Your task to perform on an android device: Toggle the flashlight Image 0: 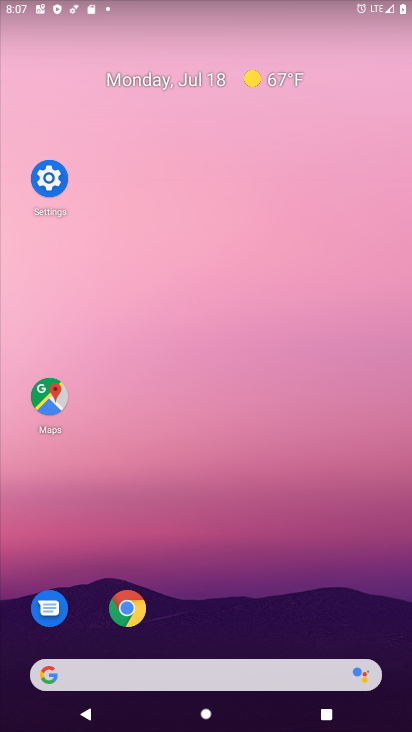
Step 0: drag from (275, 1) to (289, 359)
Your task to perform on an android device: Toggle the flashlight Image 1: 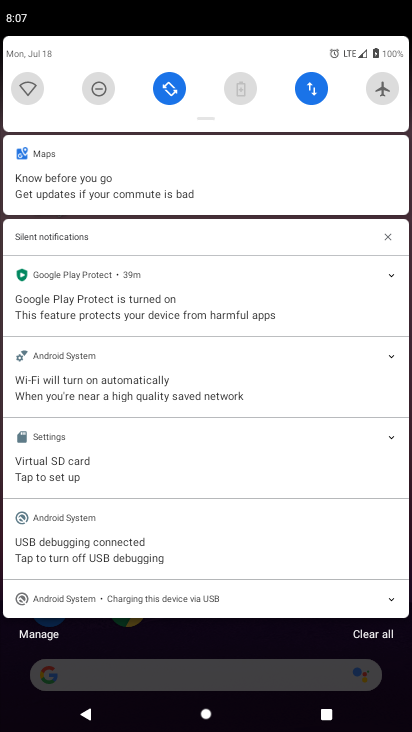
Step 1: task complete